Your task to perform on an android device: open app "Pluto TV - Live TV and Movies" (install if not already installed) Image 0: 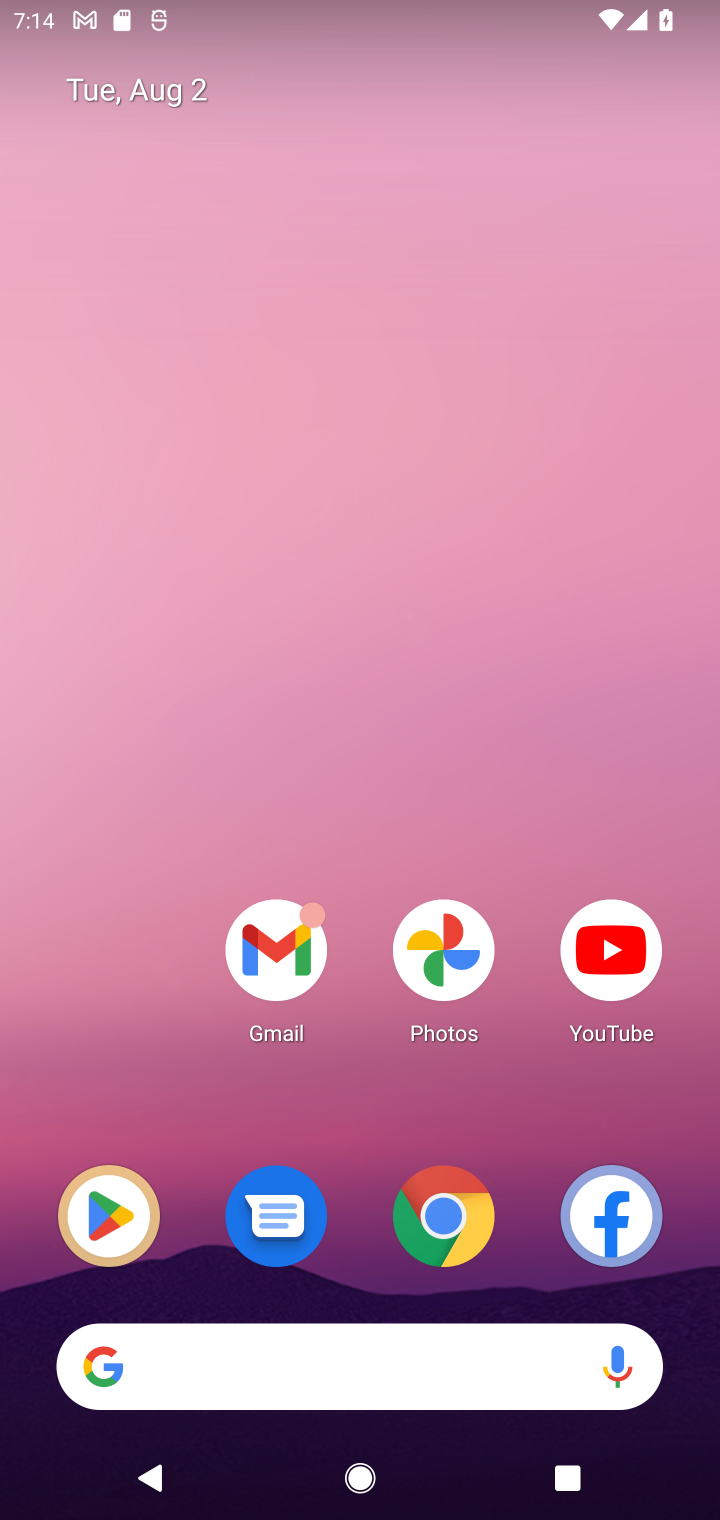
Step 0: press home button
Your task to perform on an android device: open app "Pluto TV - Live TV and Movies" (install if not already installed) Image 1: 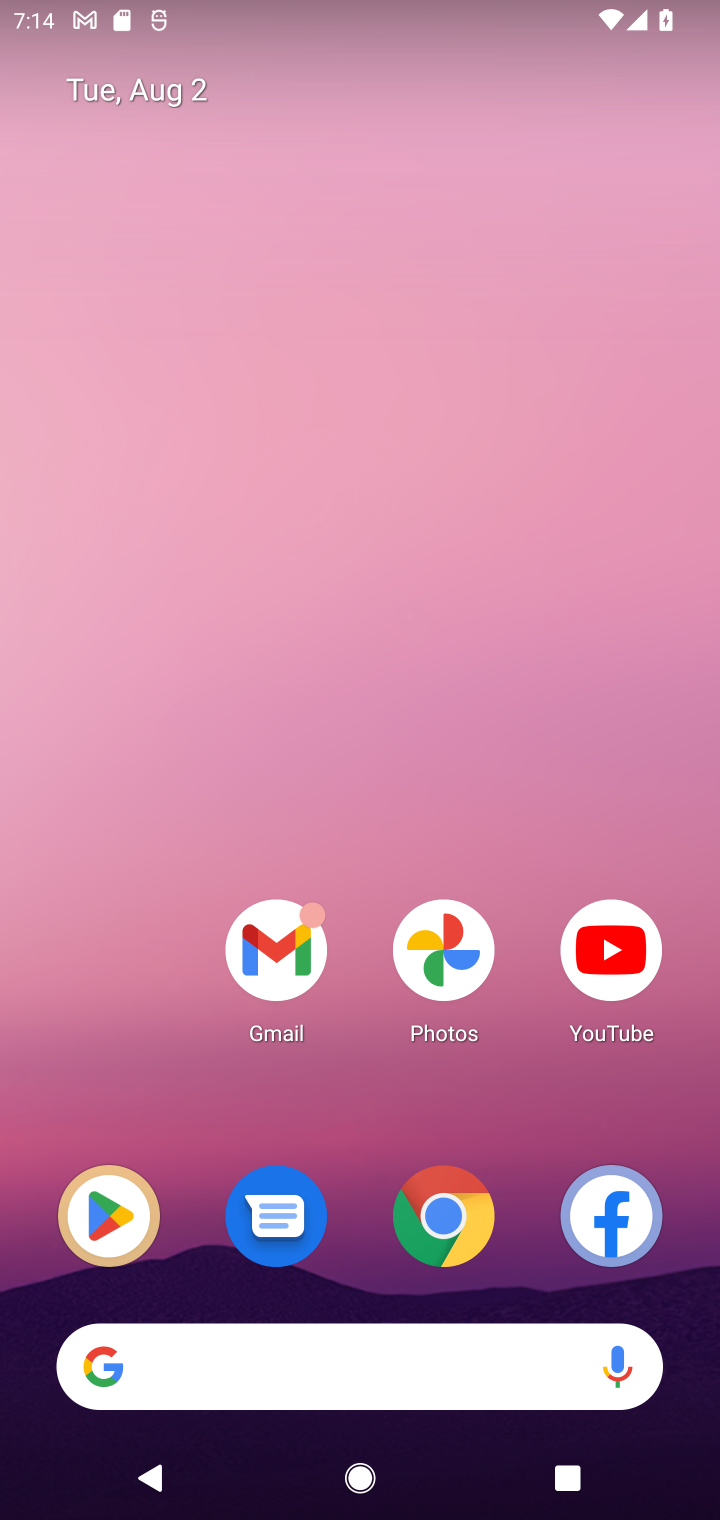
Step 1: click (104, 1222)
Your task to perform on an android device: open app "Pluto TV - Live TV and Movies" (install if not already installed) Image 2: 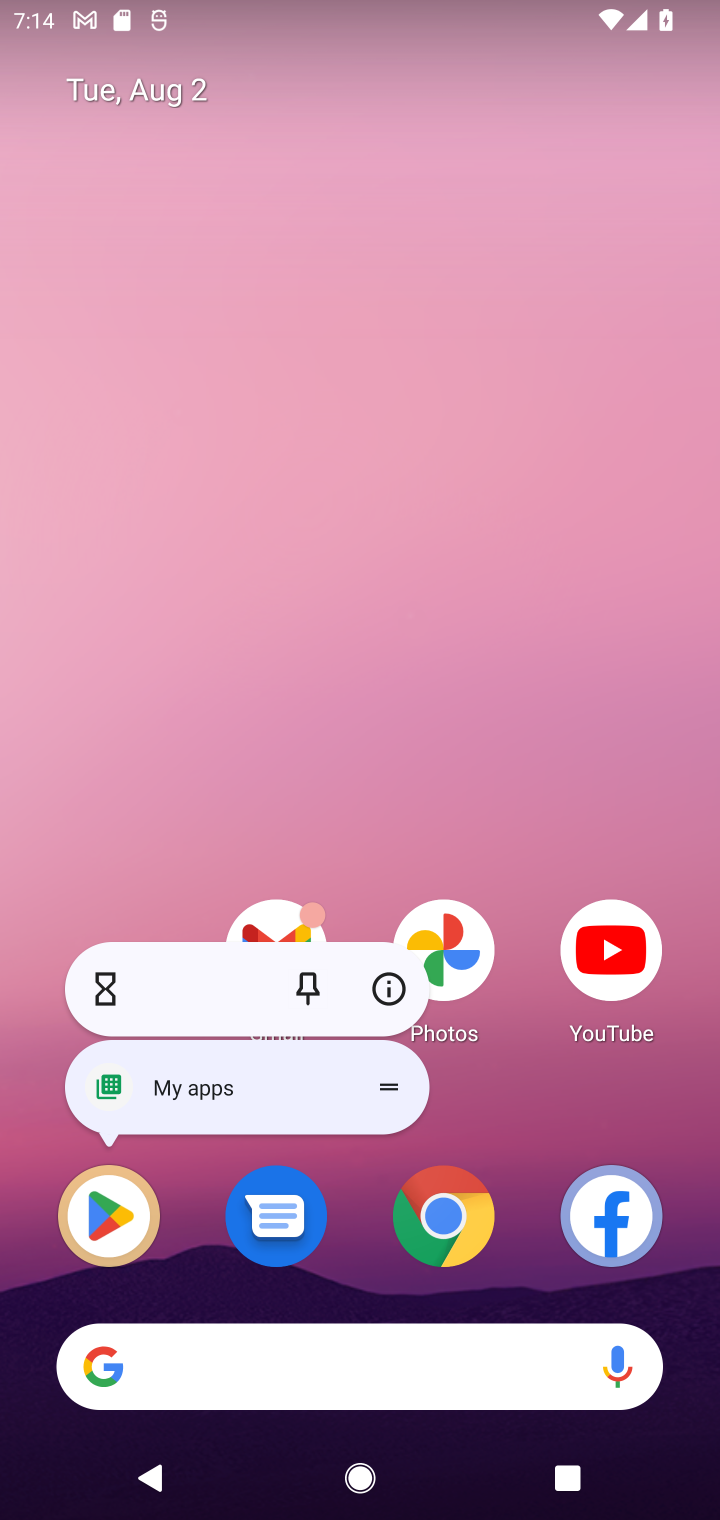
Step 2: click (99, 1223)
Your task to perform on an android device: open app "Pluto TV - Live TV and Movies" (install if not already installed) Image 3: 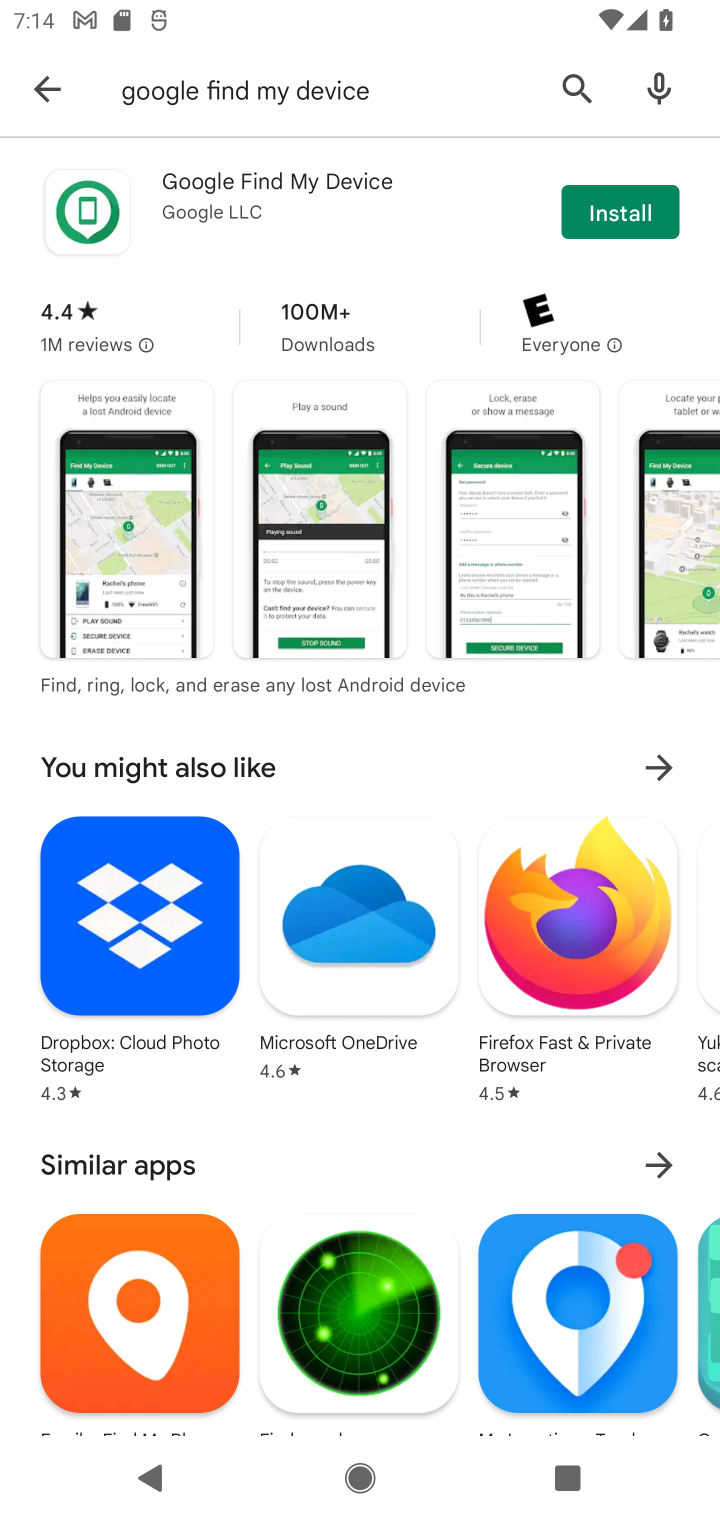
Step 3: click (572, 94)
Your task to perform on an android device: open app "Pluto TV - Live TV and Movies" (install if not already installed) Image 4: 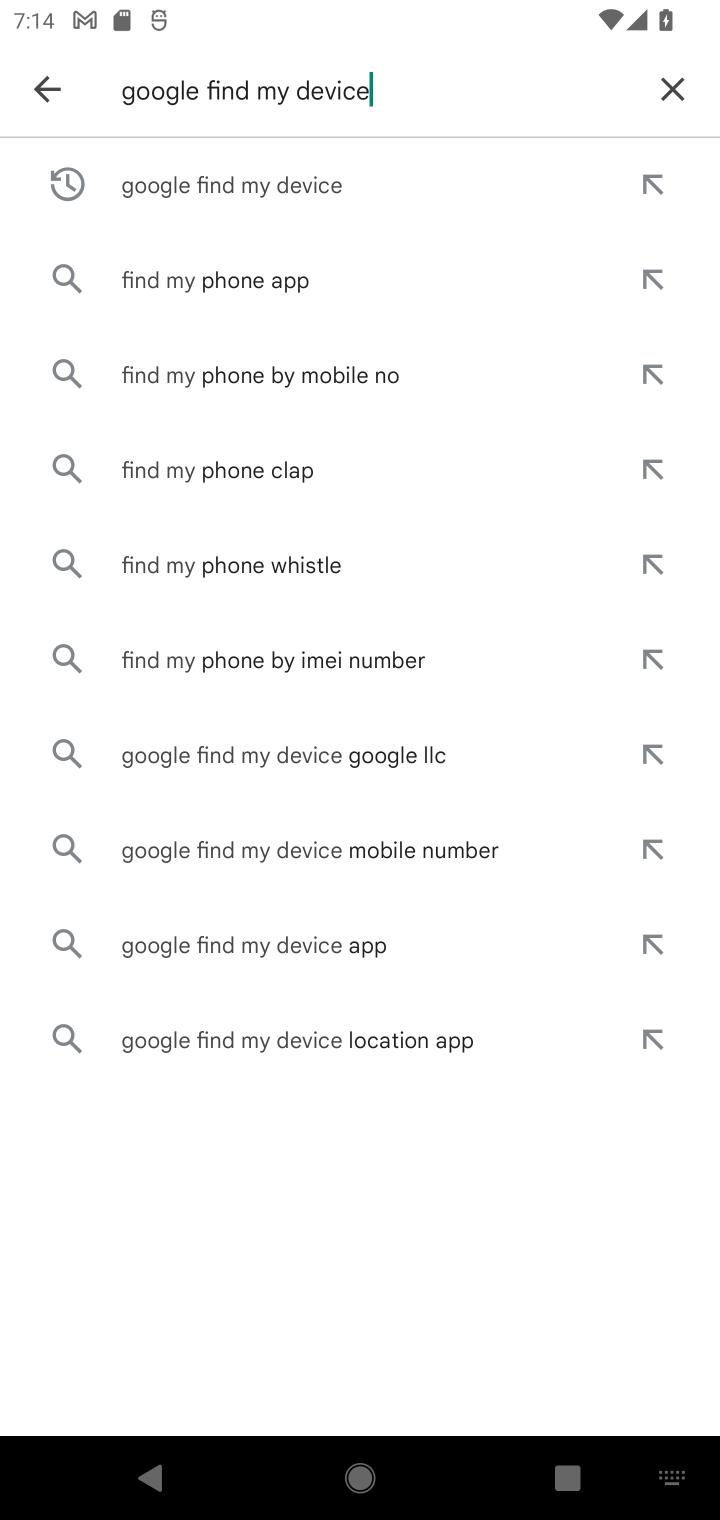
Step 4: click (655, 68)
Your task to perform on an android device: open app "Pluto TV - Live TV and Movies" (install if not already installed) Image 5: 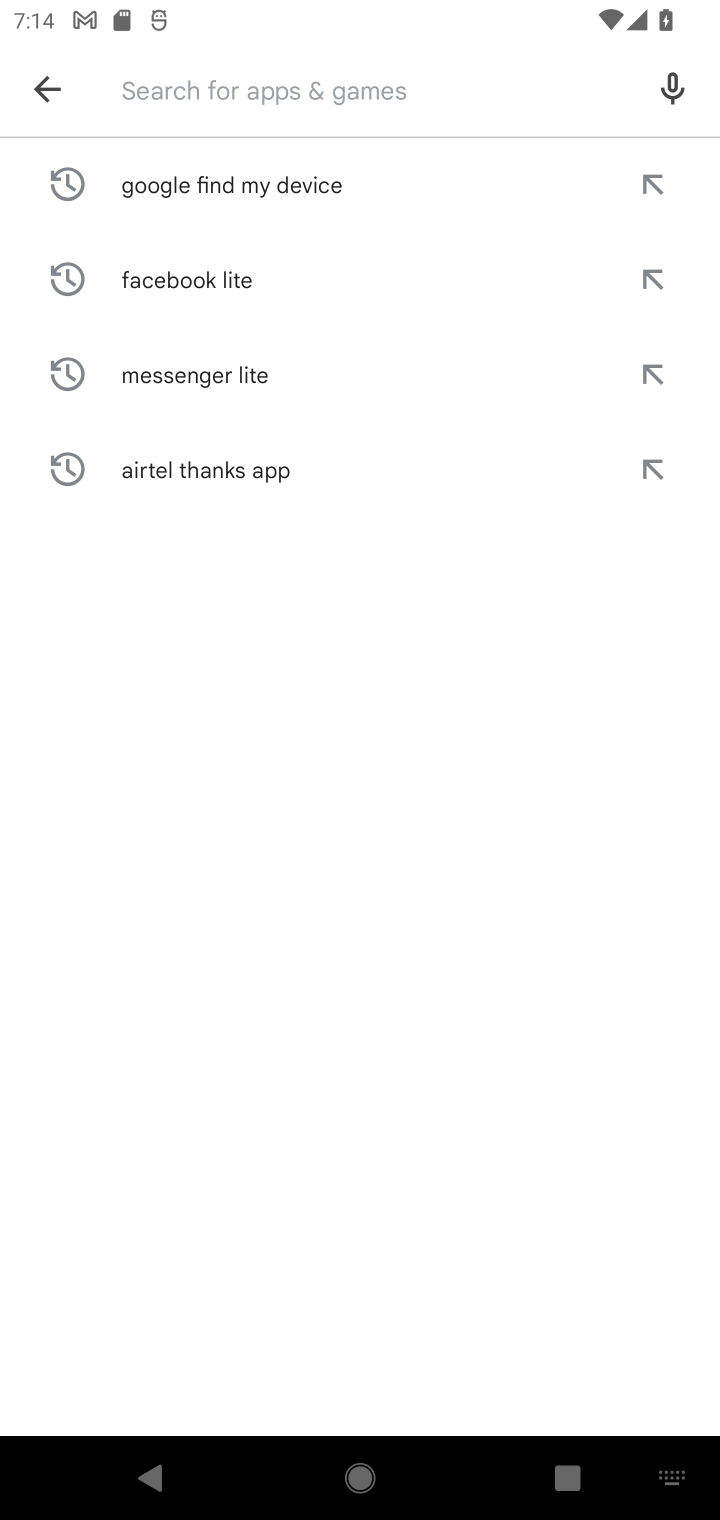
Step 5: type "Pluto TV - Live TV and Movies"
Your task to perform on an android device: open app "Pluto TV - Live TV and Movies" (install if not already installed) Image 6: 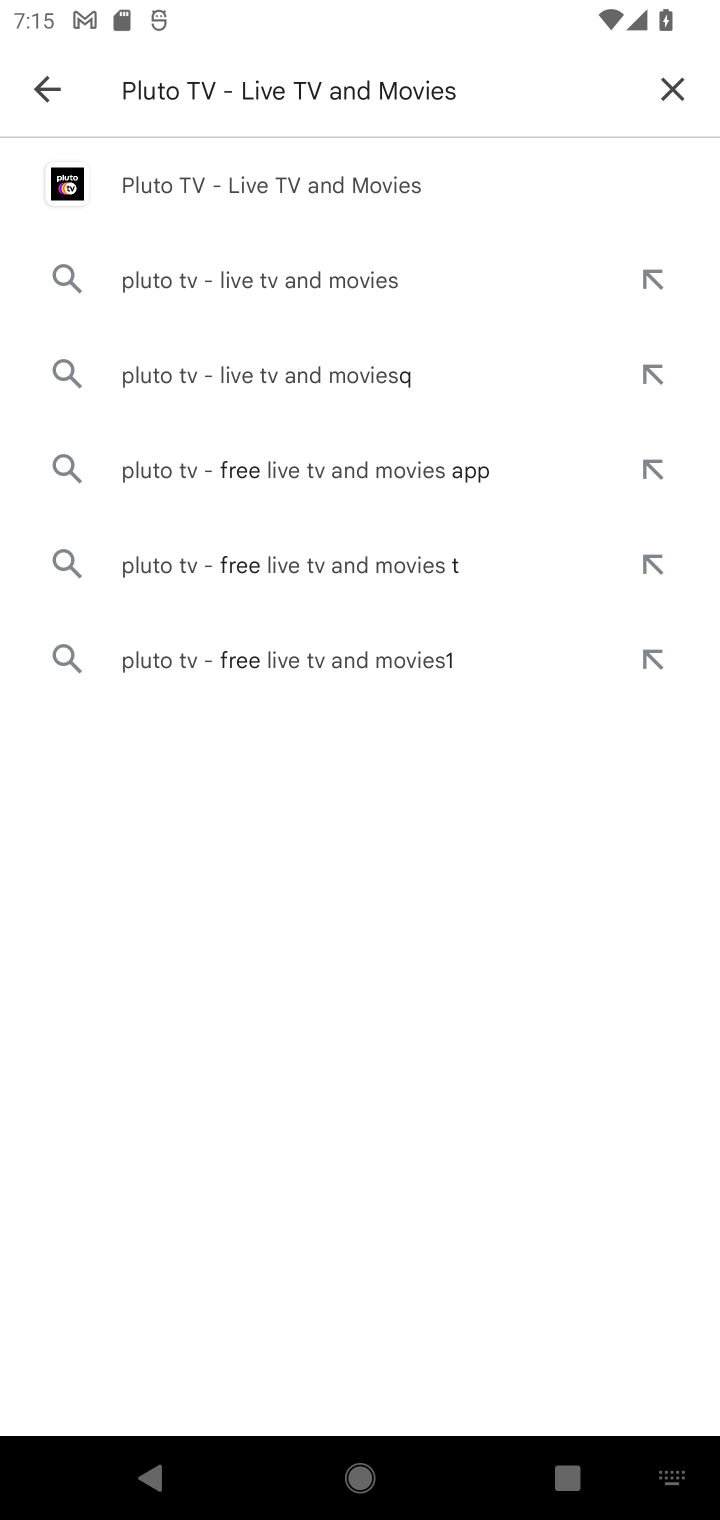
Step 6: click (289, 189)
Your task to perform on an android device: open app "Pluto TV - Live TV and Movies" (install if not already installed) Image 7: 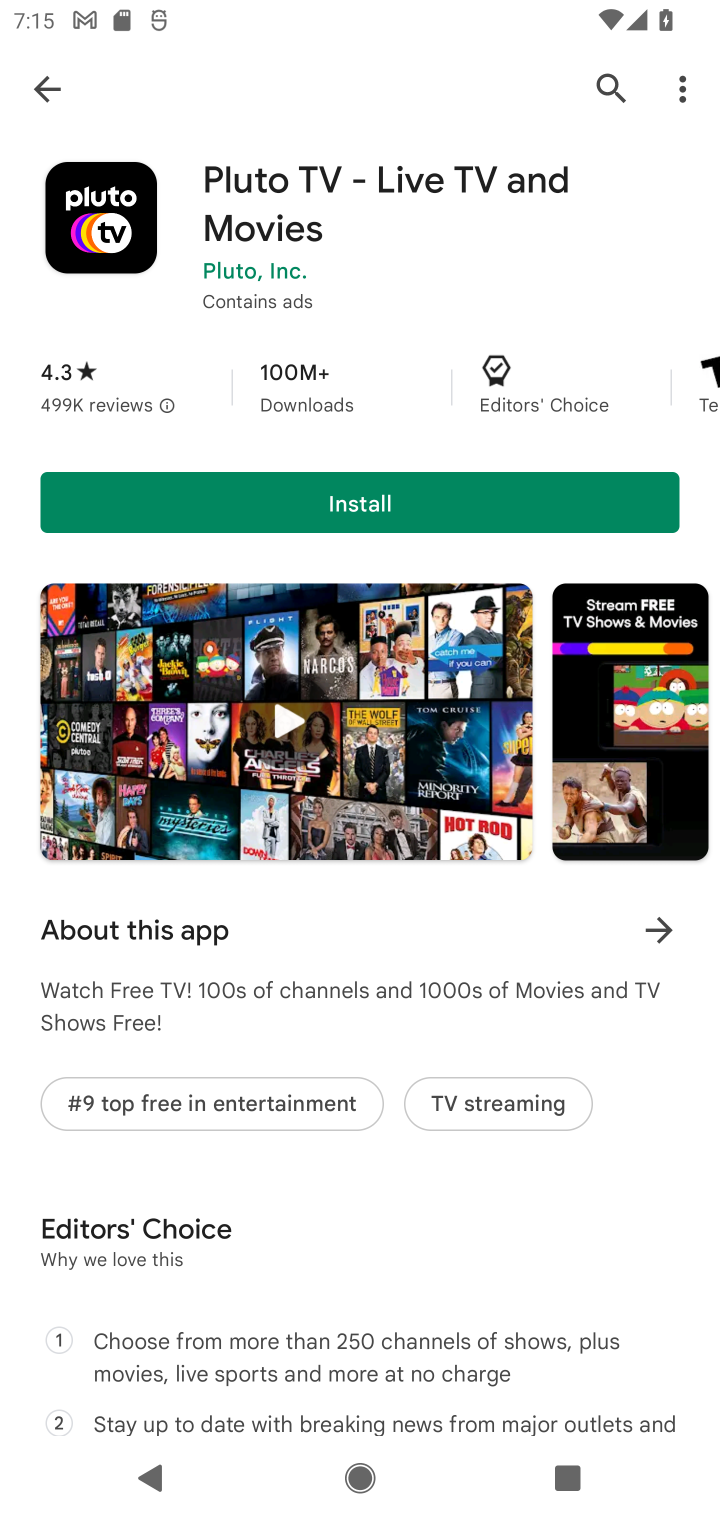
Step 7: click (363, 500)
Your task to perform on an android device: open app "Pluto TV - Live TV and Movies" (install if not already installed) Image 8: 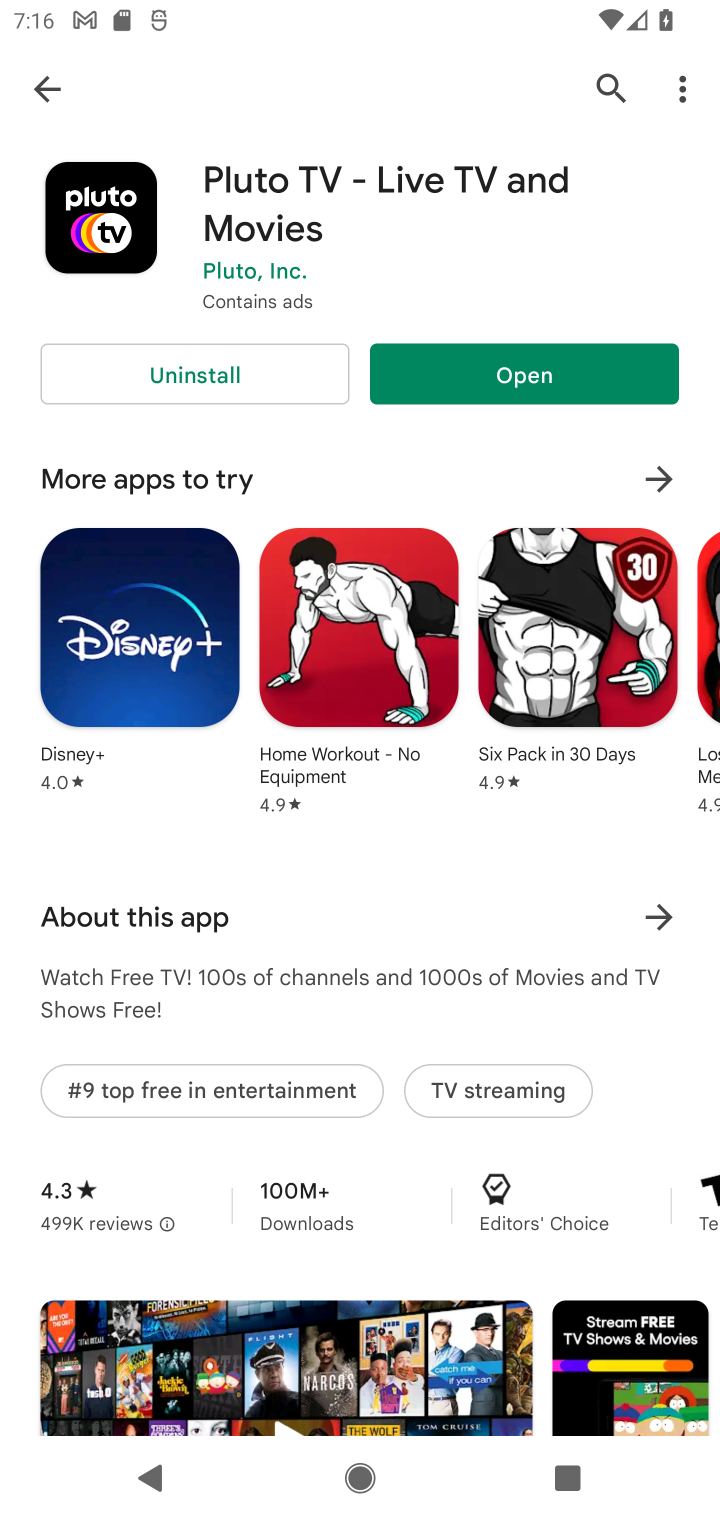
Step 8: click (566, 383)
Your task to perform on an android device: open app "Pluto TV - Live TV and Movies" (install if not already installed) Image 9: 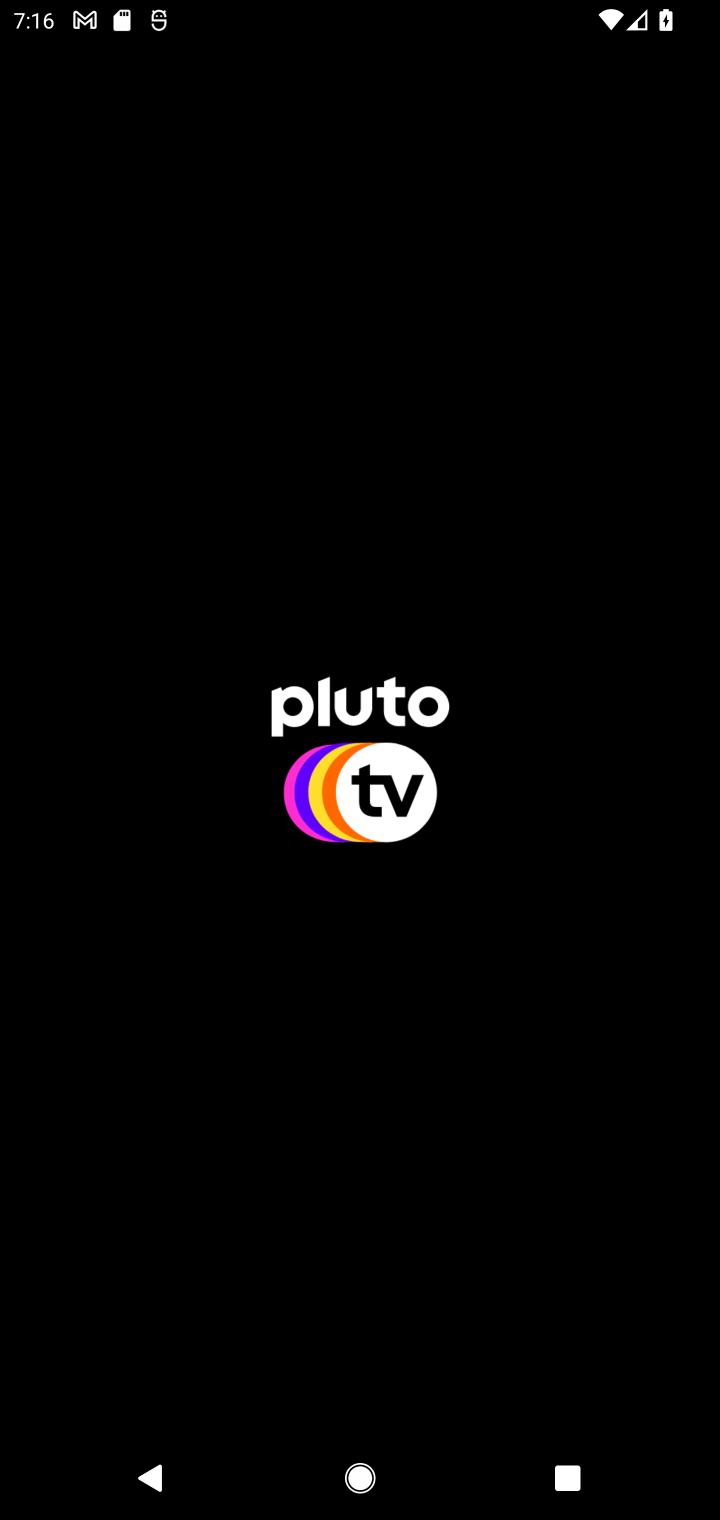
Step 9: task complete